Your task to perform on an android device: Open Chrome and go to the settings page Image 0: 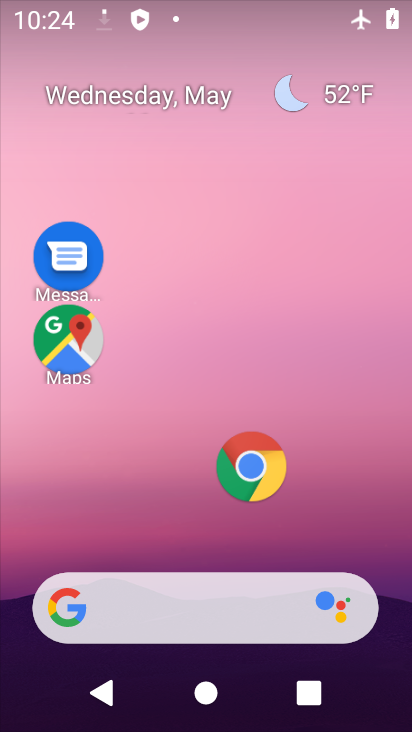
Step 0: click (266, 465)
Your task to perform on an android device: Open Chrome and go to the settings page Image 1: 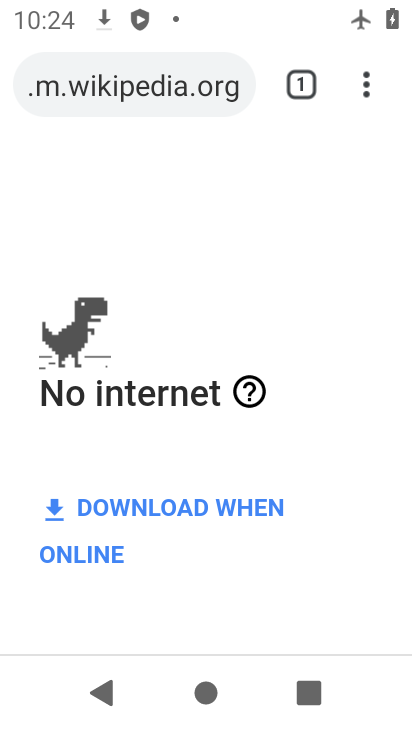
Step 1: click (369, 73)
Your task to perform on an android device: Open Chrome and go to the settings page Image 2: 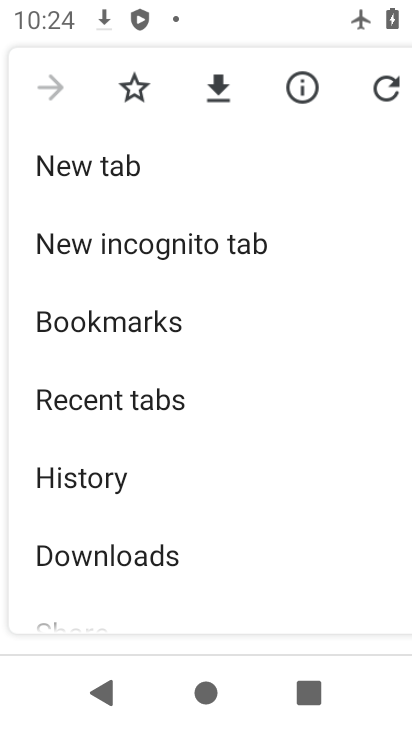
Step 2: drag from (217, 571) to (203, 86)
Your task to perform on an android device: Open Chrome and go to the settings page Image 3: 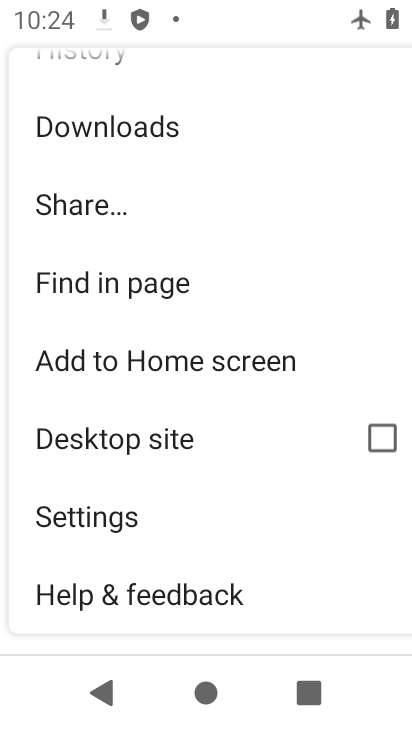
Step 3: click (117, 502)
Your task to perform on an android device: Open Chrome and go to the settings page Image 4: 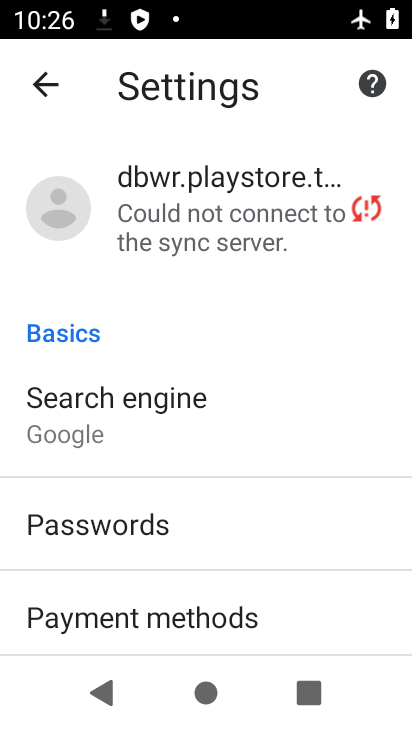
Step 4: task complete